Your task to perform on an android device: toggle show notifications on the lock screen Image 0: 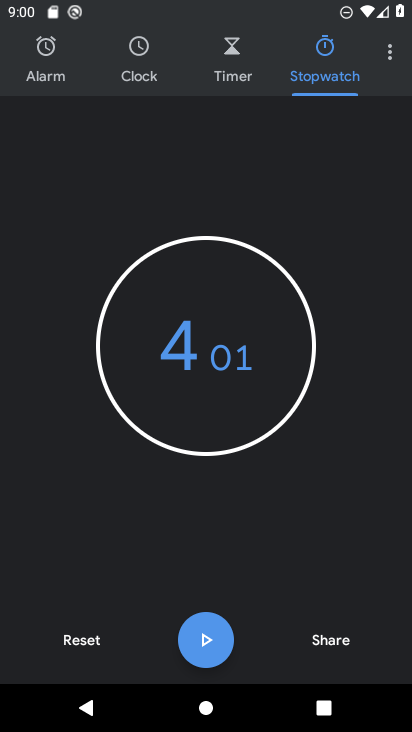
Step 0: press home button
Your task to perform on an android device: toggle show notifications on the lock screen Image 1: 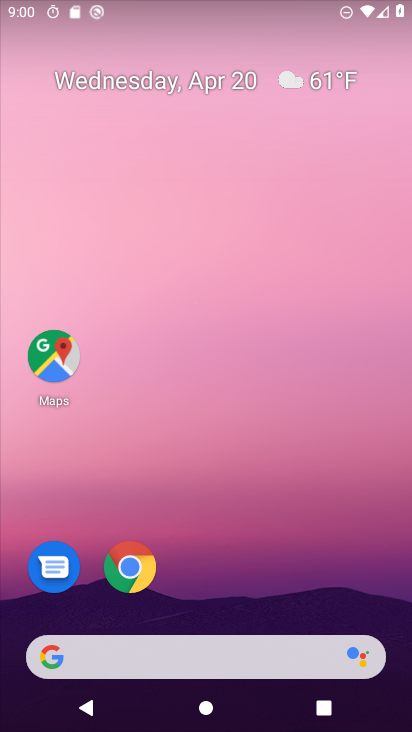
Step 1: drag from (370, 543) to (385, 14)
Your task to perform on an android device: toggle show notifications on the lock screen Image 2: 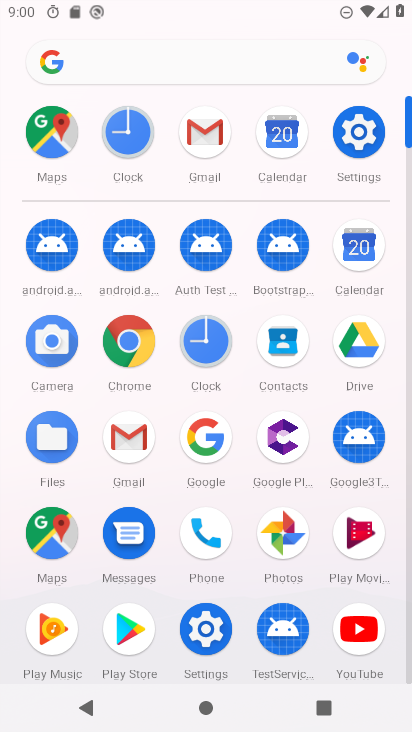
Step 2: click (354, 142)
Your task to perform on an android device: toggle show notifications on the lock screen Image 3: 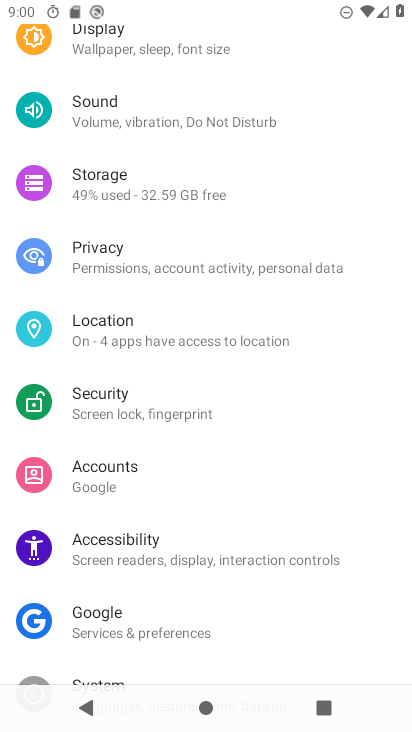
Step 3: drag from (375, 147) to (334, 412)
Your task to perform on an android device: toggle show notifications on the lock screen Image 4: 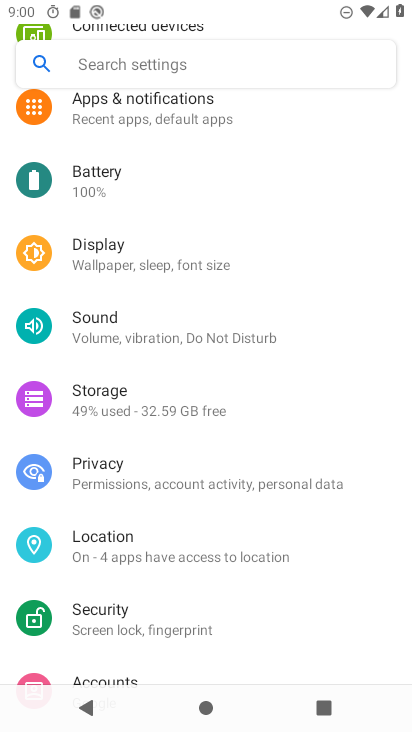
Step 4: click (190, 117)
Your task to perform on an android device: toggle show notifications on the lock screen Image 5: 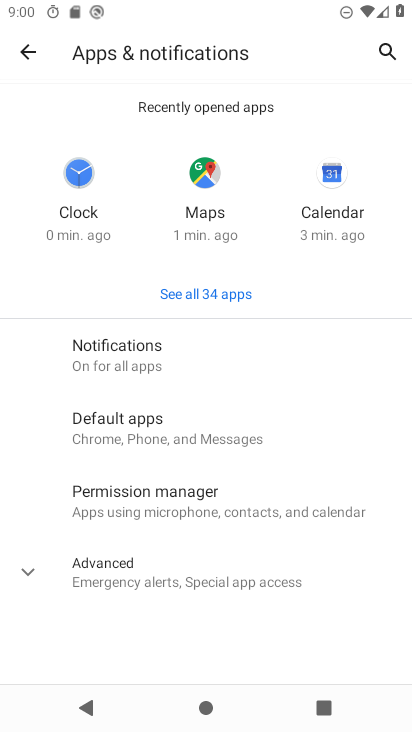
Step 5: click (79, 358)
Your task to perform on an android device: toggle show notifications on the lock screen Image 6: 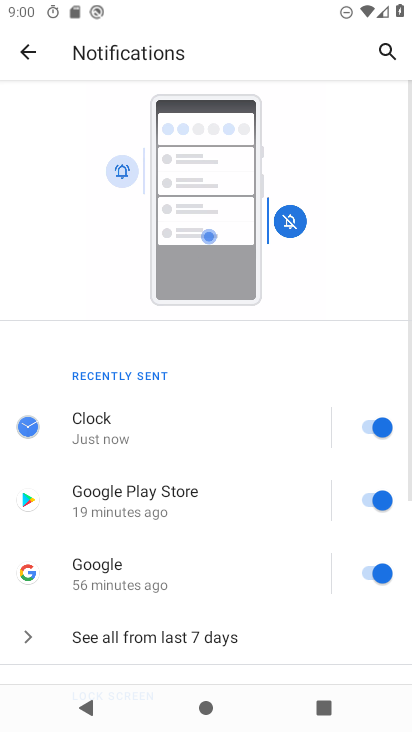
Step 6: drag from (134, 548) to (114, 226)
Your task to perform on an android device: toggle show notifications on the lock screen Image 7: 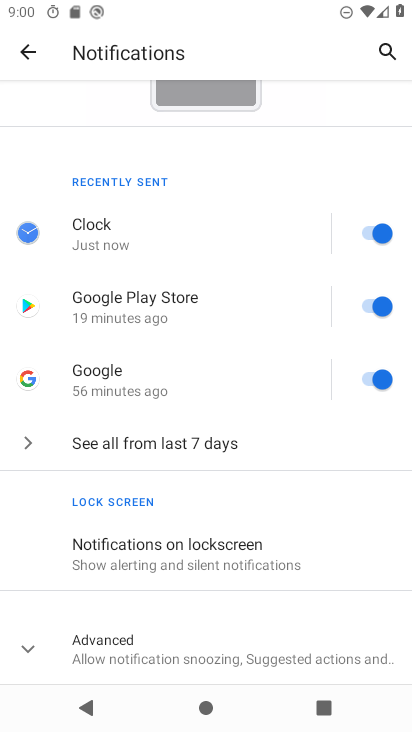
Step 7: click (94, 549)
Your task to perform on an android device: toggle show notifications on the lock screen Image 8: 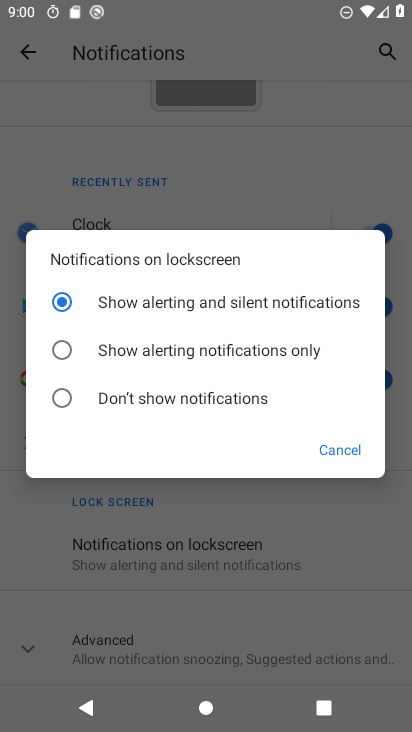
Step 8: click (64, 398)
Your task to perform on an android device: toggle show notifications on the lock screen Image 9: 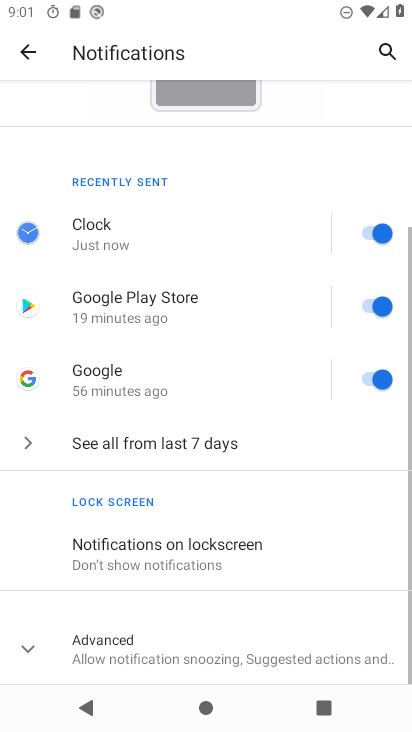
Step 9: task complete